Your task to perform on an android device: show emergency info Image 0: 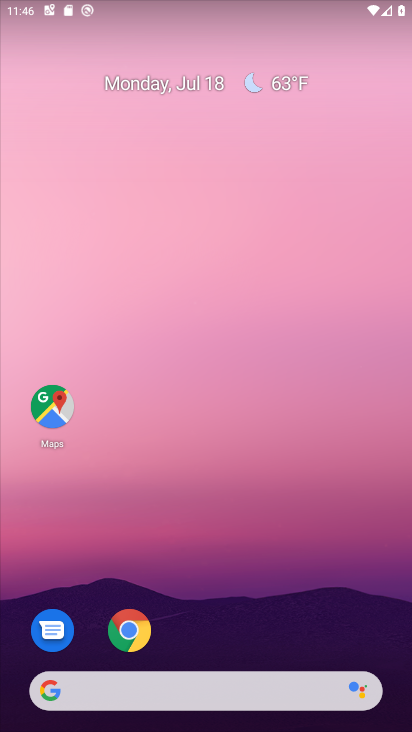
Step 0: drag from (224, 579) to (237, 149)
Your task to perform on an android device: show emergency info Image 1: 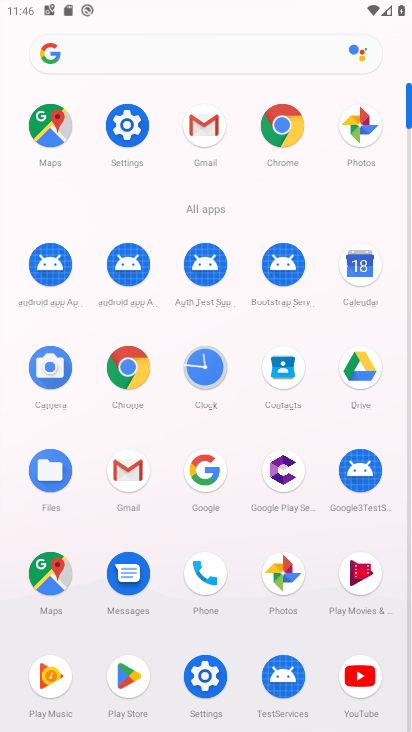
Step 1: click (209, 676)
Your task to perform on an android device: show emergency info Image 2: 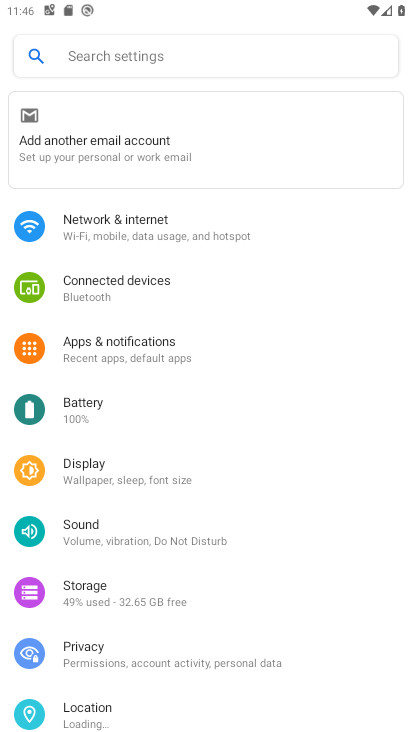
Step 2: drag from (185, 671) to (93, 18)
Your task to perform on an android device: show emergency info Image 3: 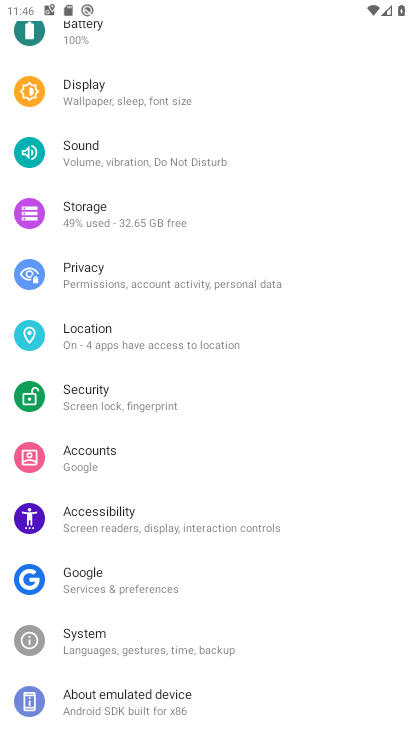
Step 3: click (92, 699)
Your task to perform on an android device: show emergency info Image 4: 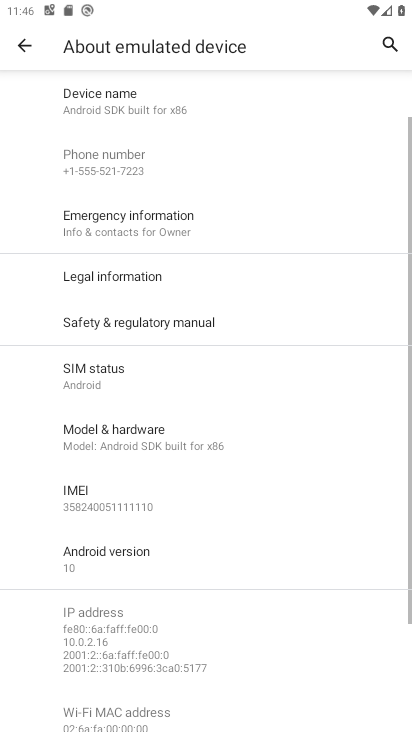
Step 4: click (141, 228)
Your task to perform on an android device: show emergency info Image 5: 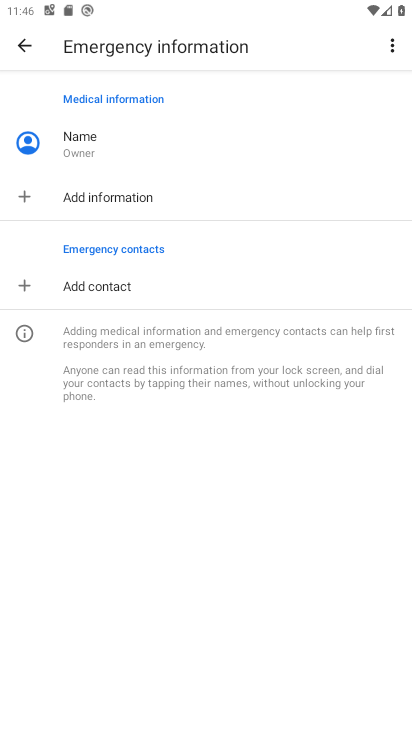
Step 5: task complete